Your task to perform on an android device: Show me productivity apps on the Play Store Image 0: 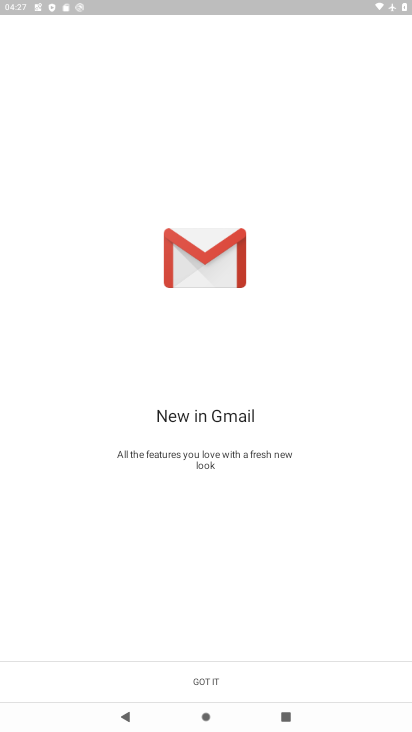
Step 0: press home button
Your task to perform on an android device: Show me productivity apps on the Play Store Image 1: 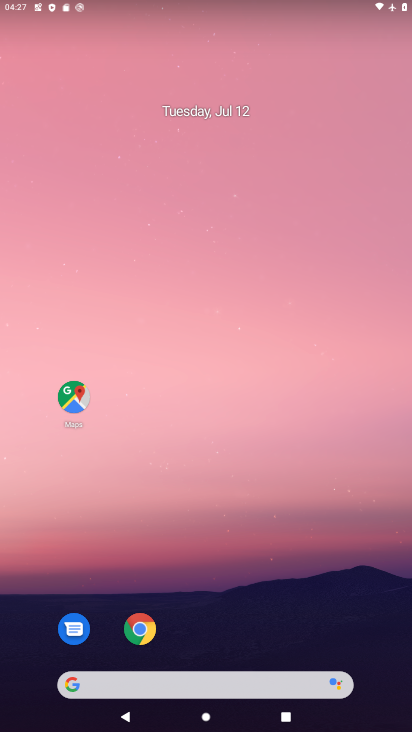
Step 1: drag from (276, 644) to (221, 132)
Your task to perform on an android device: Show me productivity apps on the Play Store Image 2: 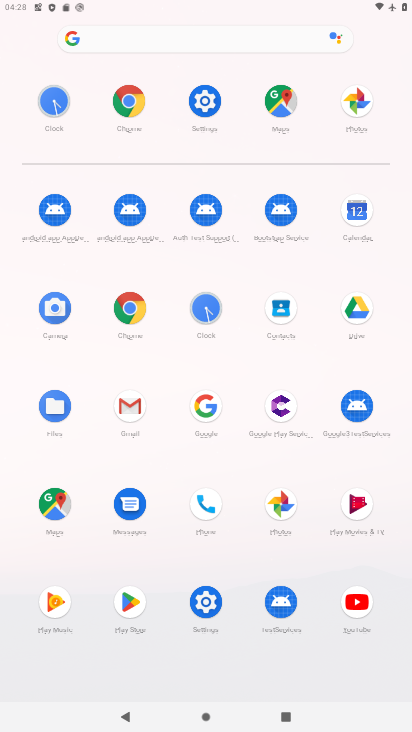
Step 2: click (135, 608)
Your task to perform on an android device: Show me productivity apps on the Play Store Image 3: 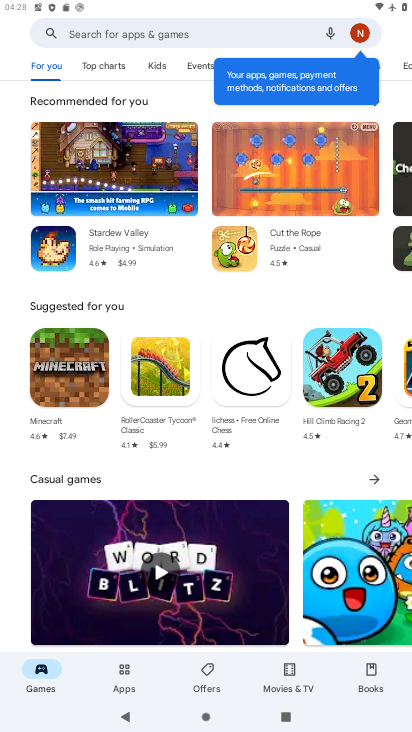
Step 3: click (129, 677)
Your task to perform on an android device: Show me productivity apps on the Play Store Image 4: 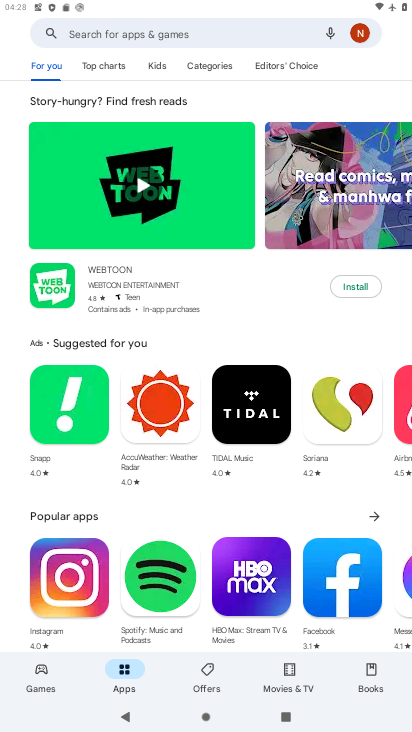
Step 4: task complete